Your task to perform on an android device: toggle translation in the chrome app Image 0: 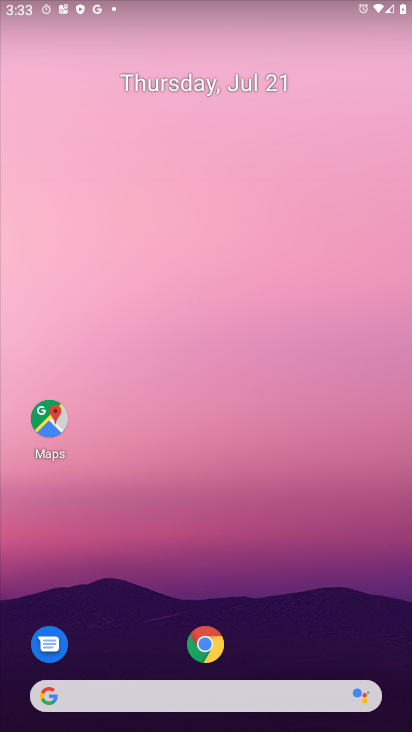
Step 0: press home button
Your task to perform on an android device: toggle translation in the chrome app Image 1: 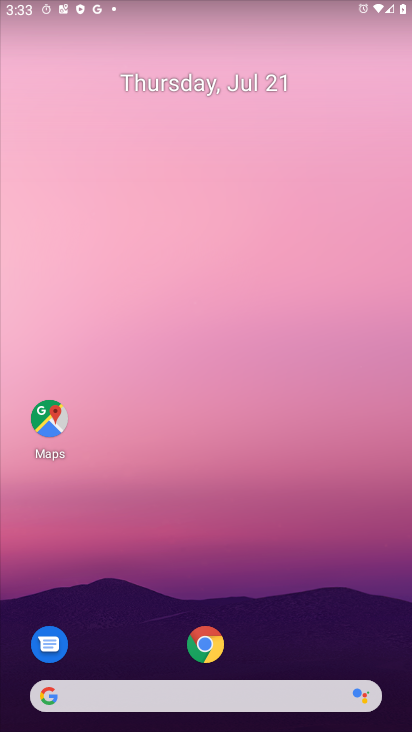
Step 1: click (204, 636)
Your task to perform on an android device: toggle translation in the chrome app Image 2: 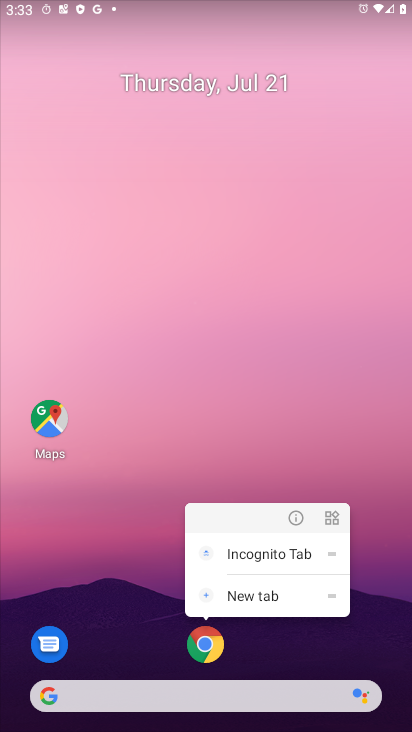
Step 2: click (208, 653)
Your task to perform on an android device: toggle translation in the chrome app Image 3: 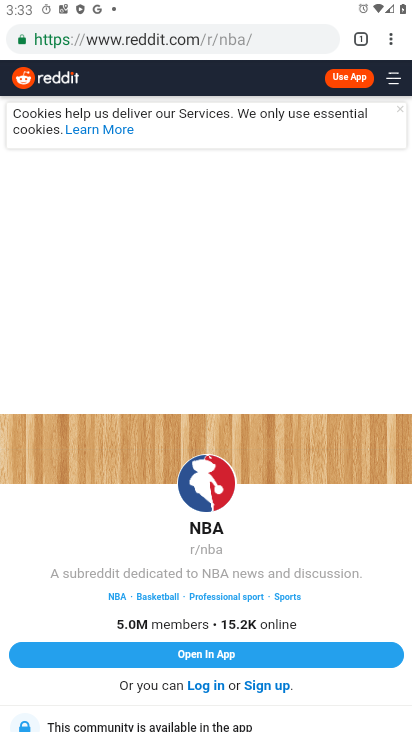
Step 3: drag from (385, 44) to (272, 523)
Your task to perform on an android device: toggle translation in the chrome app Image 4: 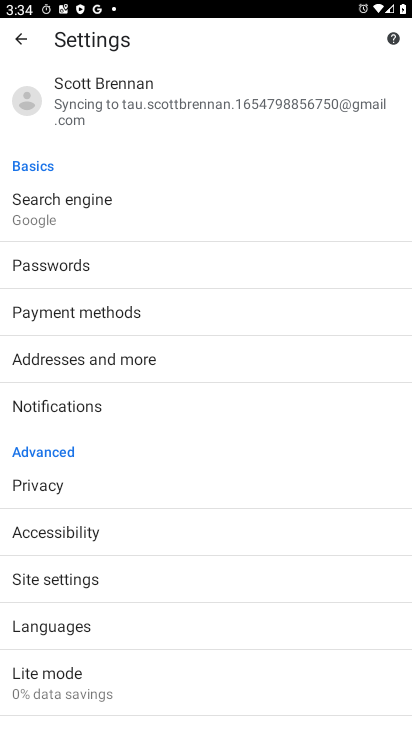
Step 4: click (36, 638)
Your task to perform on an android device: toggle translation in the chrome app Image 5: 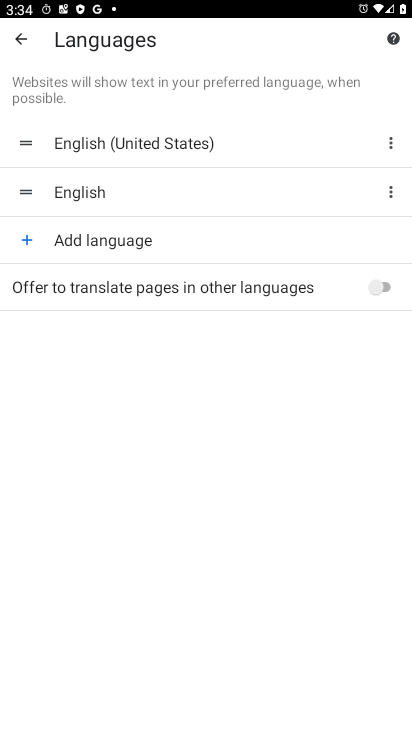
Step 5: click (387, 285)
Your task to perform on an android device: toggle translation in the chrome app Image 6: 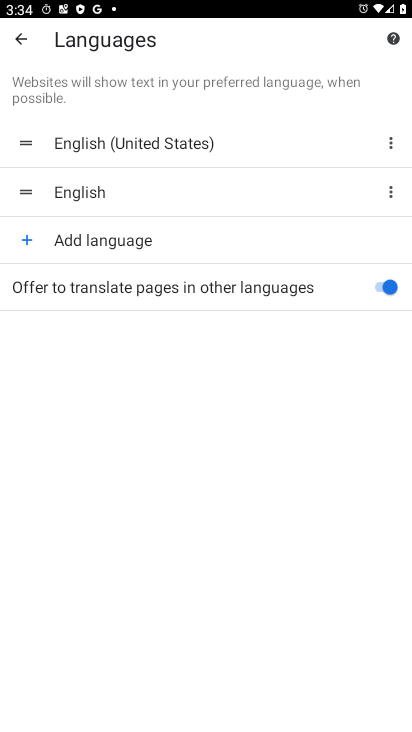
Step 6: task complete